Your task to perform on an android device: change notification settings in the gmail app Image 0: 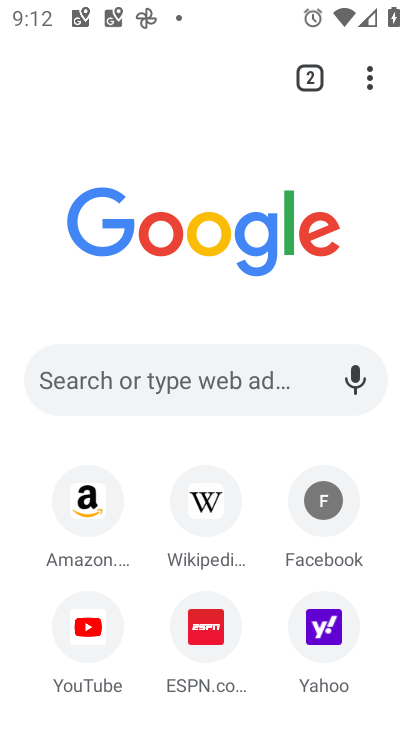
Step 0: press home button
Your task to perform on an android device: change notification settings in the gmail app Image 1: 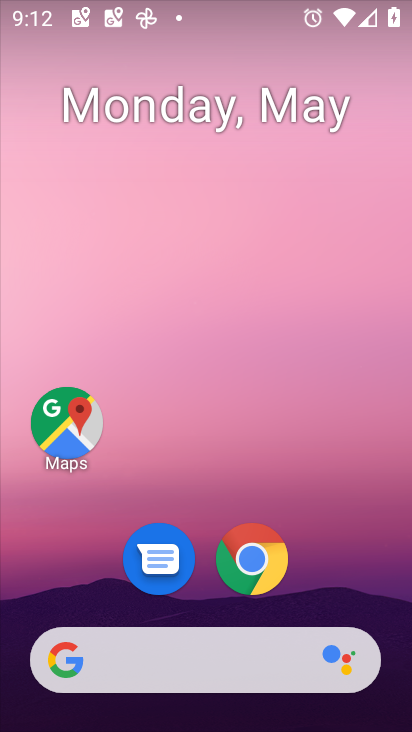
Step 1: drag from (406, 635) to (287, 164)
Your task to perform on an android device: change notification settings in the gmail app Image 2: 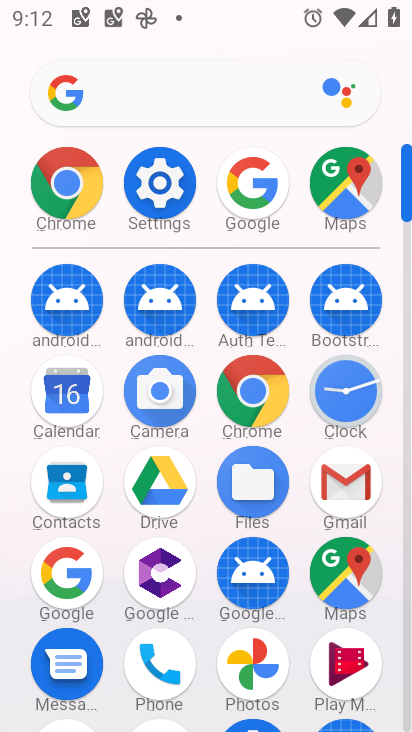
Step 2: click (345, 493)
Your task to perform on an android device: change notification settings in the gmail app Image 3: 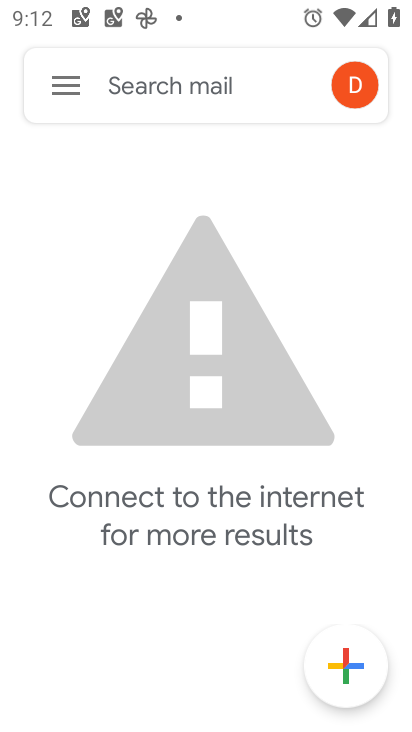
Step 3: press back button
Your task to perform on an android device: change notification settings in the gmail app Image 4: 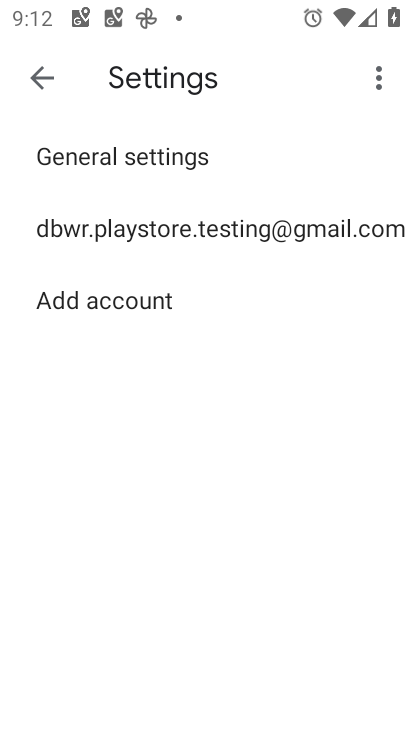
Step 4: click (362, 242)
Your task to perform on an android device: change notification settings in the gmail app Image 5: 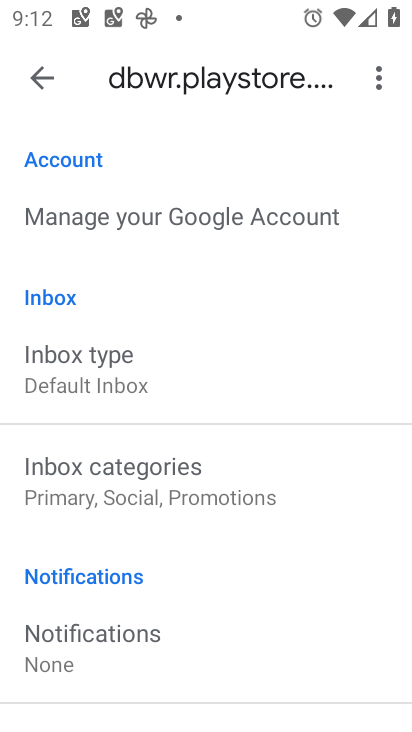
Step 5: click (169, 655)
Your task to perform on an android device: change notification settings in the gmail app Image 6: 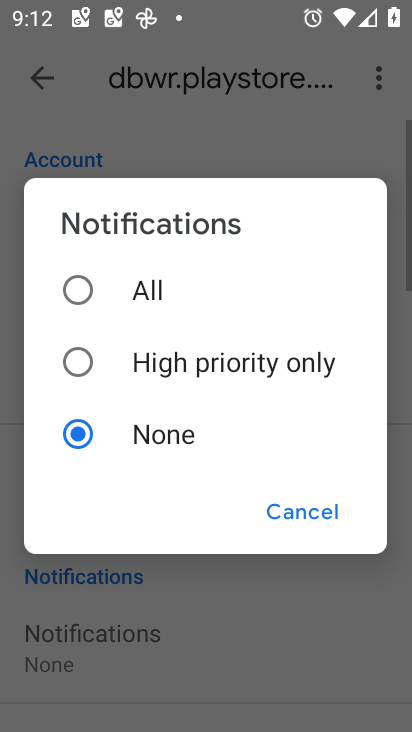
Step 6: click (137, 296)
Your task to perform on an android device: change notification settings in the gmail app Image 7: 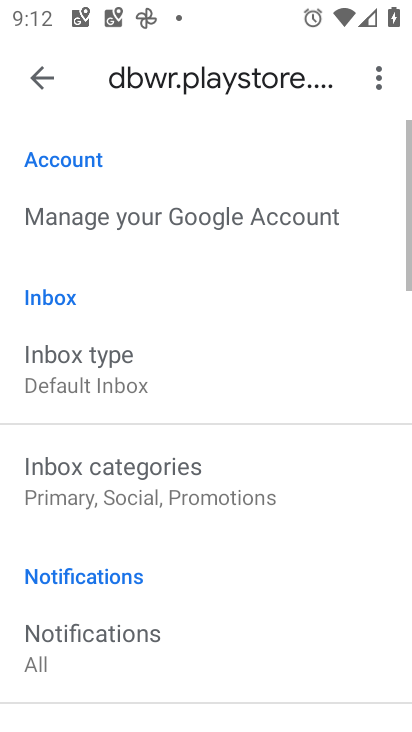
Step 7: task complete